Your task to perform on an android device: Find coffee shops on Maps Image 0: 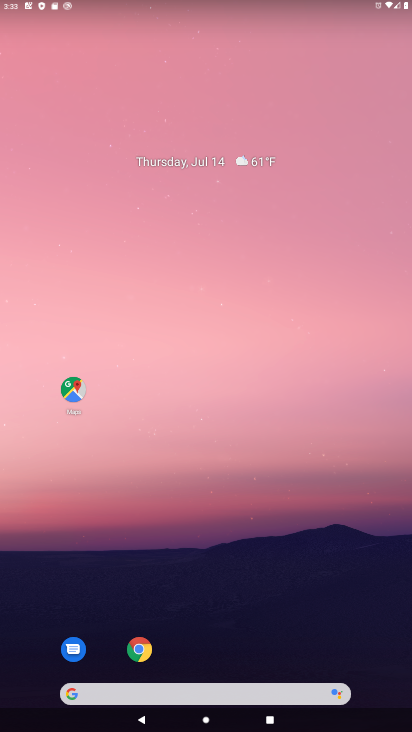
Step 0: drag from (197, 664) to (197, 116)
Your task to perform on an android device: Find coffee shops on Maps Image 1: 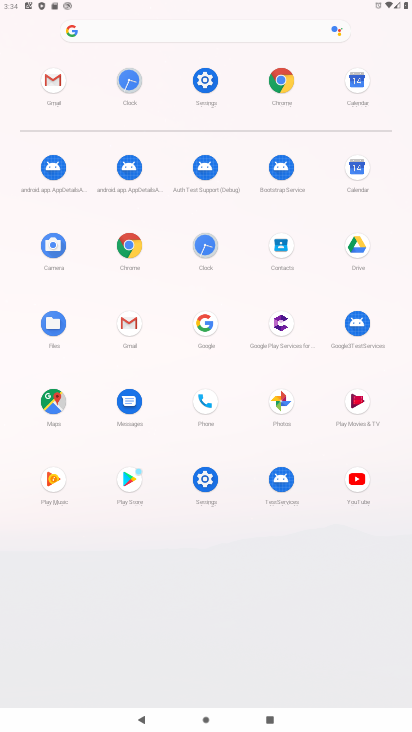
Step 1: click (46, 400)
Your task to perform on an android device: Find coffee shops on Maps Image 2: 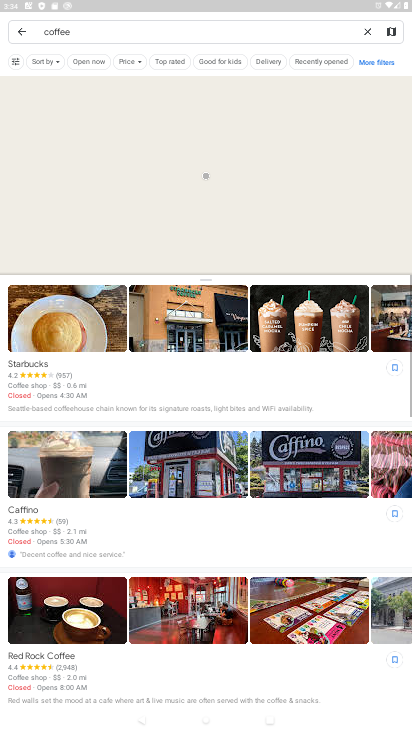
Step 2: task complete